Your task to perform on an android device: Go to location settings Image 0: 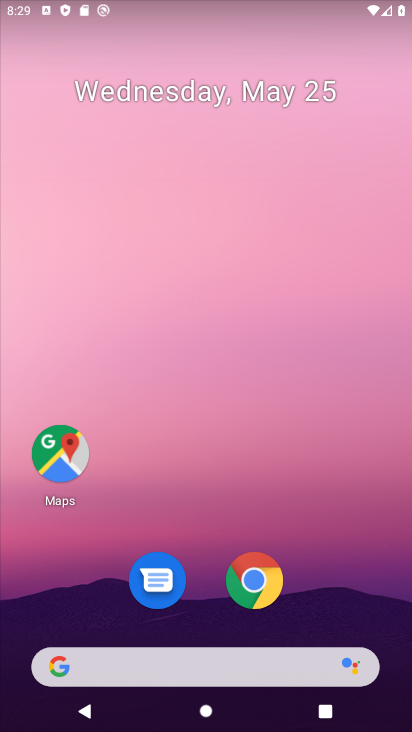
Step 0: press home button
Your task to perform on an android device: Go to location settings Image 1: 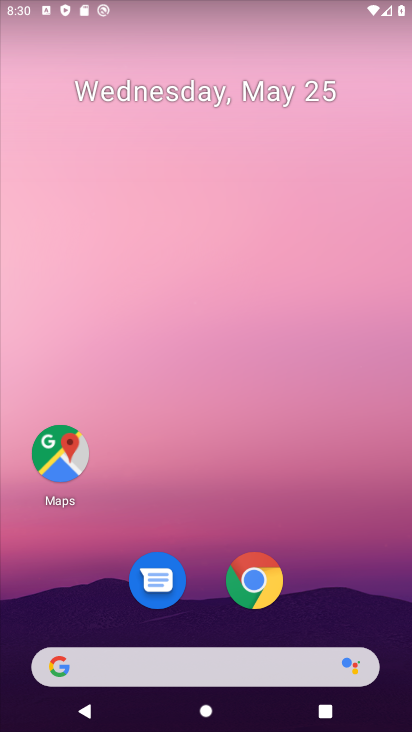
Step 1: drag from (1, 683) to (240, 120)
Your task to perform on an android device: Go to location settings Image 2: 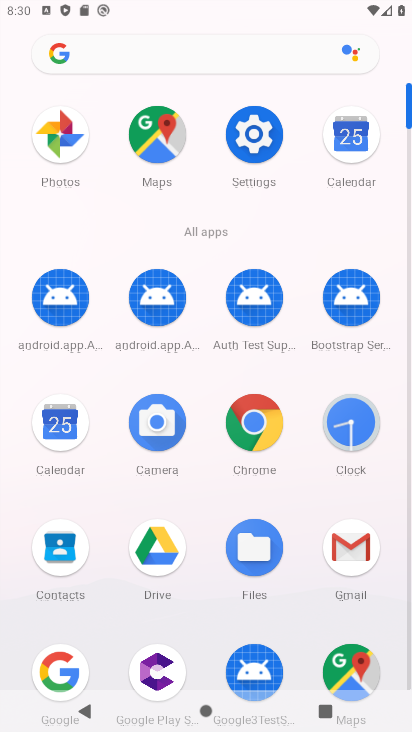
Step 2: click (258, 129)
Your task to perform on an android device: Go to location settings Image 3: 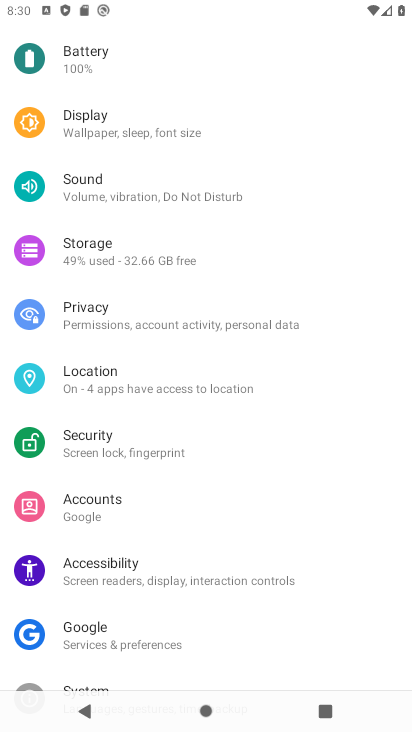
Step 3: click (95, 382)
Your task to perform on an android device: Go to location settings Image 4: 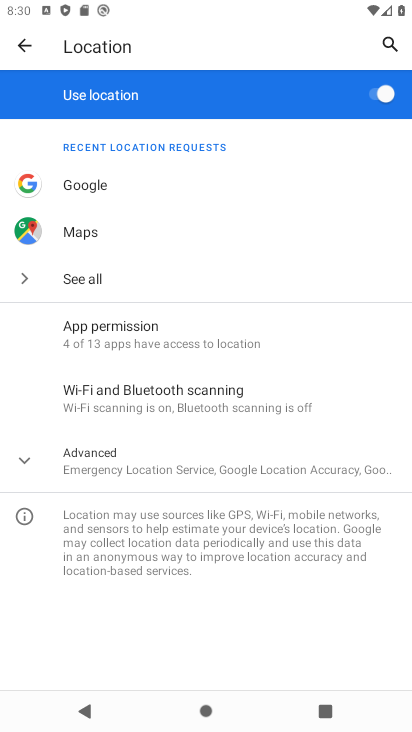
Step 4: task complete